Your task to perform on an android device: change the clock display to show seconds Image 0: 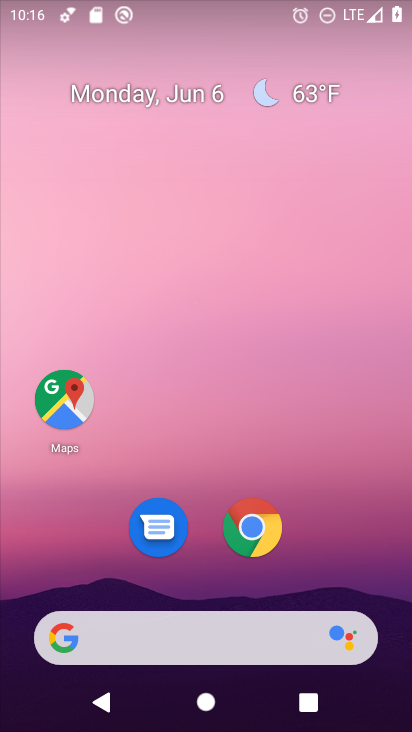
Step 0: drag from (351, 568) to (385, 193)
Your task to perform on an android device: change the clock display to show seconds Image 1: 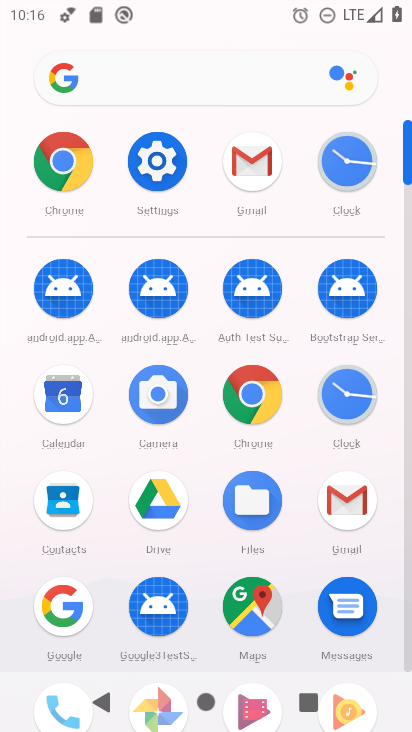
Step 1: click (361, 390)
Your task to perform on an android device: change the clock display to show seconds Image 2: 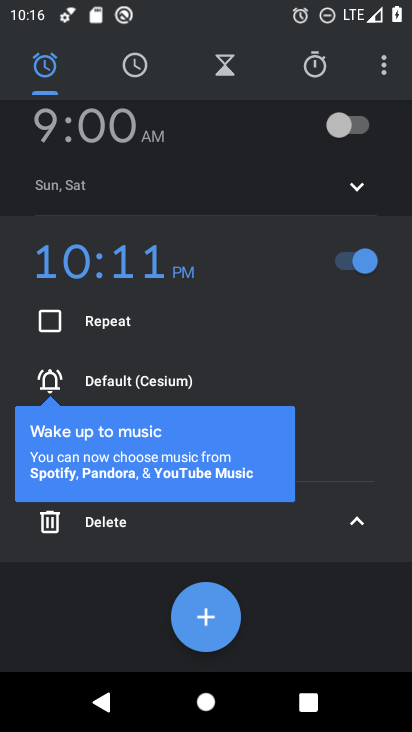
Step 2: click (388, 68)
Your task to perform on an android device: change the clock display to show seconds Image 3: 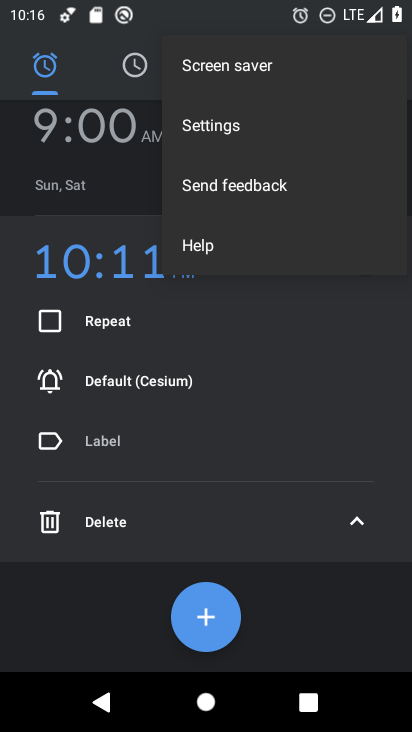
Step 3: click (242, 135)
Your task to perform on an android device: change the clock display to show seconds Image 4: 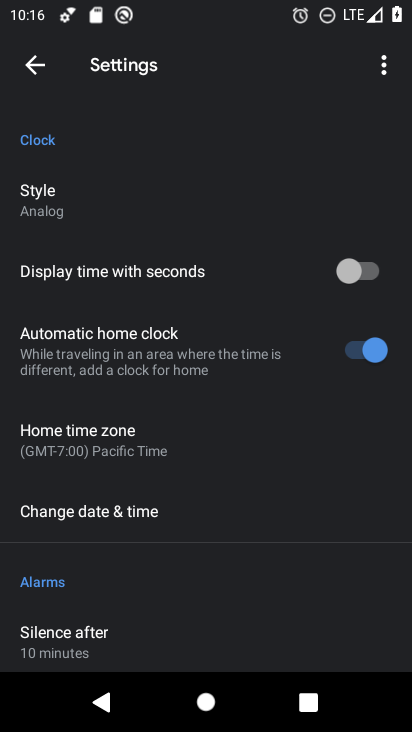
Step 4: drag from (278, 489) to (274, 401)
Your task to perform on an android device: change the clock display to show seconds Image 5: 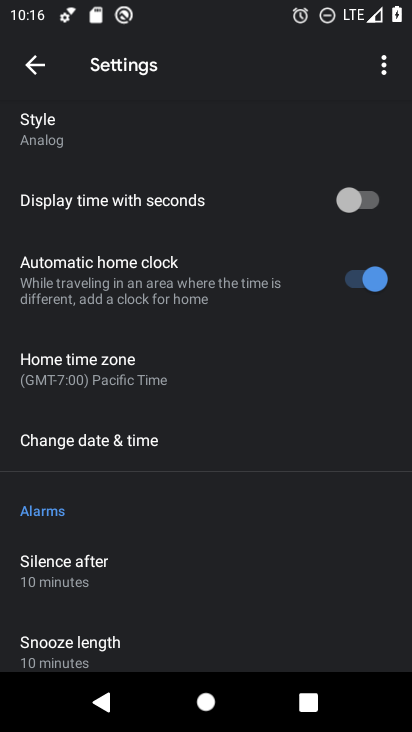
Step 5: click (293, 210)
Your task to perform on an android device: change the clock display to show seconds Image 6: 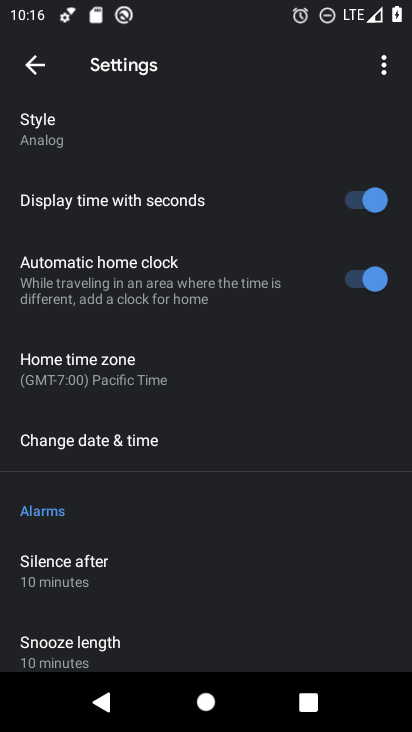
Step 6: task complete